Your task to perform on an android device: change notifications settings Image 0: 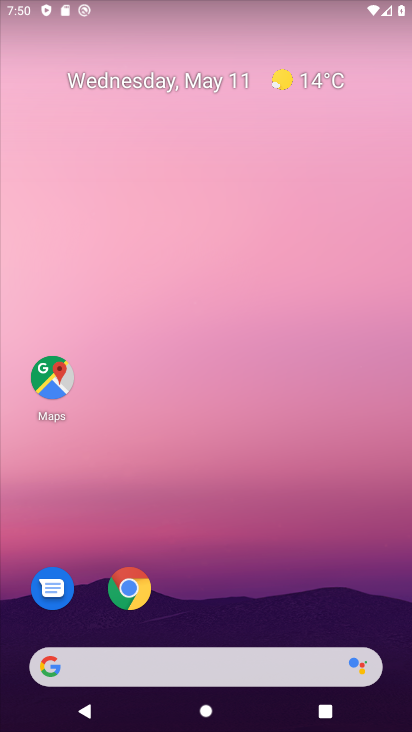
Step 0: drag from (258, 717) to (366, 38)
Your task to perform on an android device: change notifications settings Image 1: 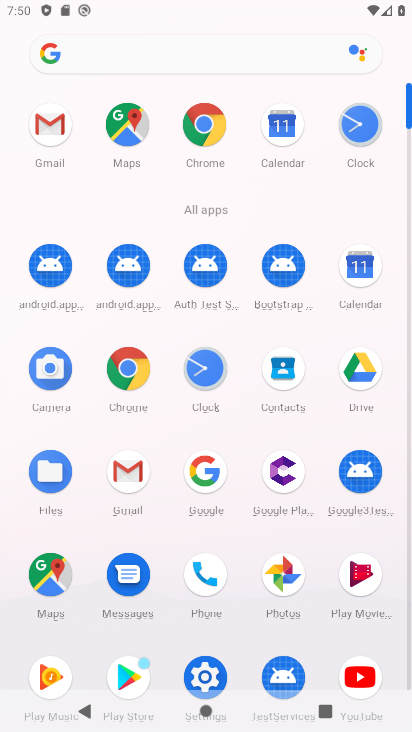
Step 1: click (199, 676)
Your task to perform on an android device: change notifications settings Image 2: 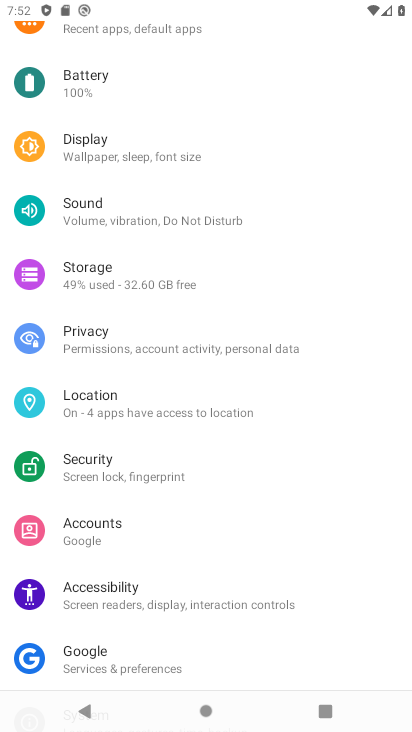
Step 2: drag from (210, 586) to (223, 720)
Your task to perform on an android device: change notifications settings Image 3: 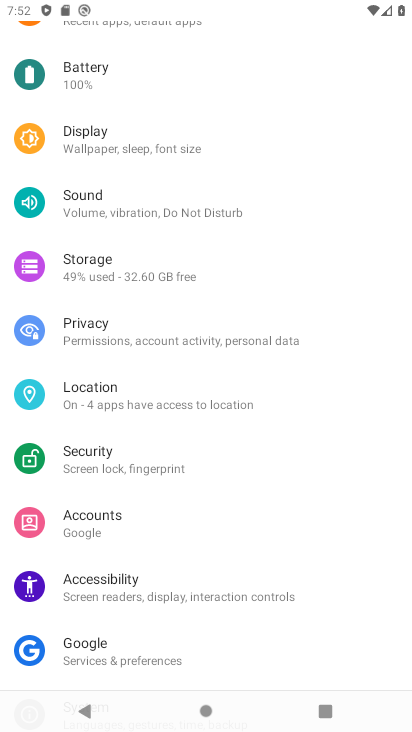
Step 3: drag from (257, 100) to (279, 538)
Your task to perform on an android device: change notifications settings Image 4: 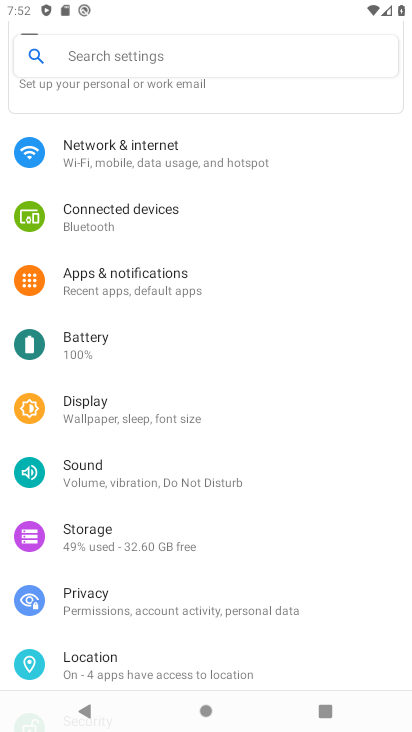
Step 4: click (125, 271)
Your task to perform on an android device: change notifications settings Image 5: 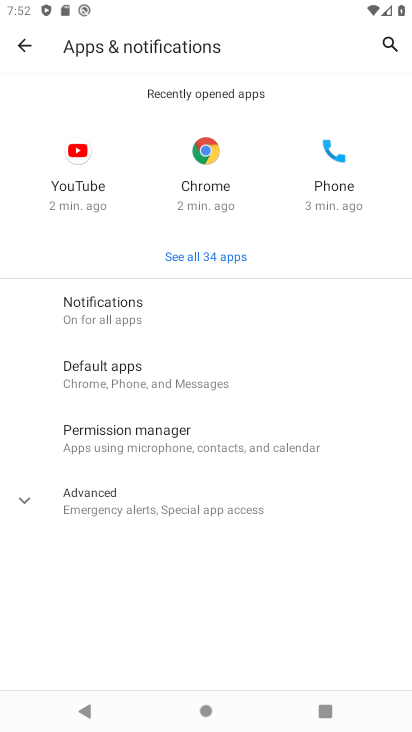
Step 5: click (153, 319)
Your task to perform on an android device: change notifications settings Image 6: 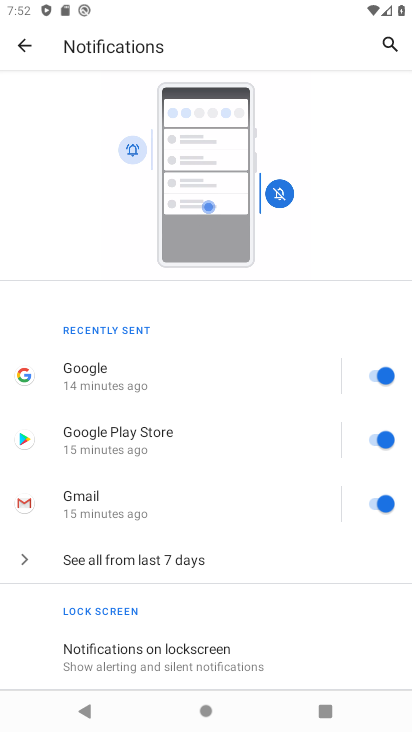
Step 6: click (390, 375)
Your task to perform on an android device: change notifications settings Image 7: 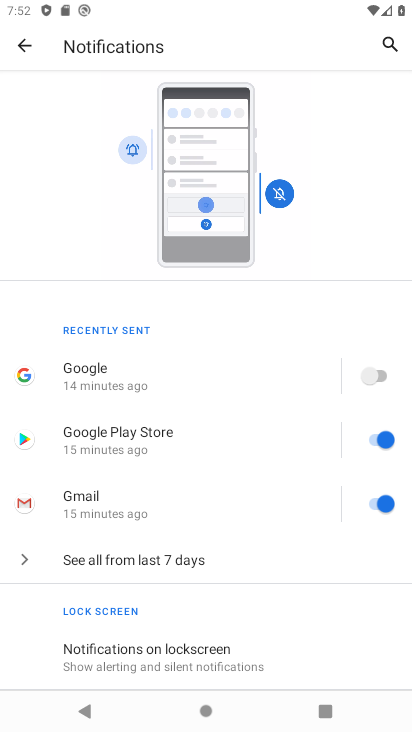
Step 7: task complete